Your task to perform on an android device: check battery use Image 0: 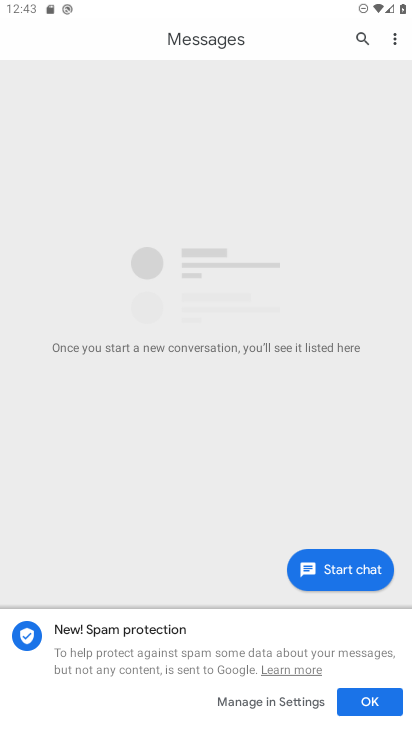
Step 0: press home button
Your task to perform on an android device: check battery use Image 1: 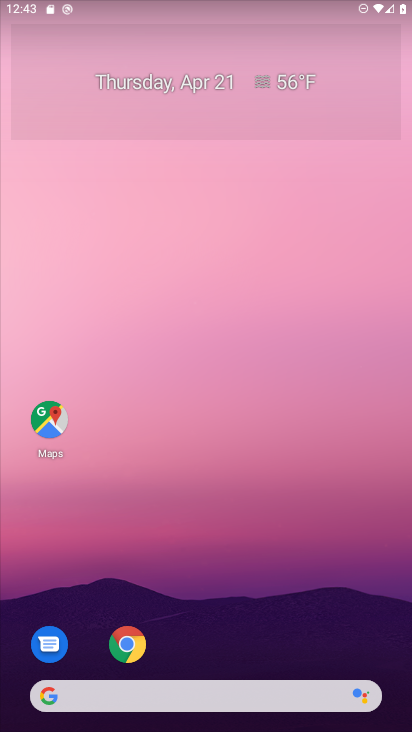
Step 1: drag from (197, 663) to (211, 64)
Your task to perform on an android device: check battery use Image 2: 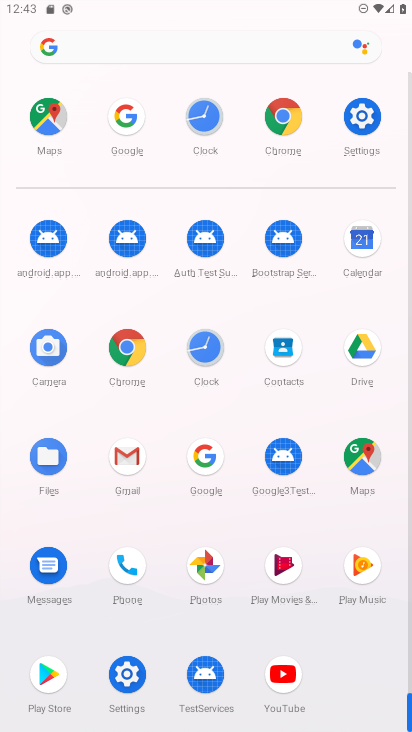
Step 2: click (362, 112)
Your task to perform on an android device: check battery use Image 3: 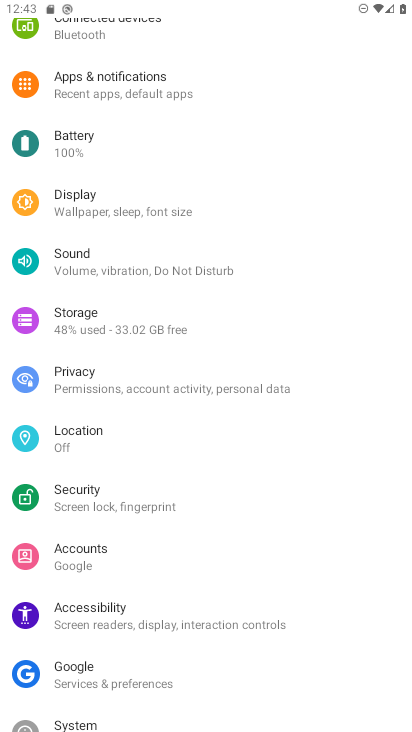
Step 3: click (78, 155)
Your task to perform on an android device: check battery use Image 4: 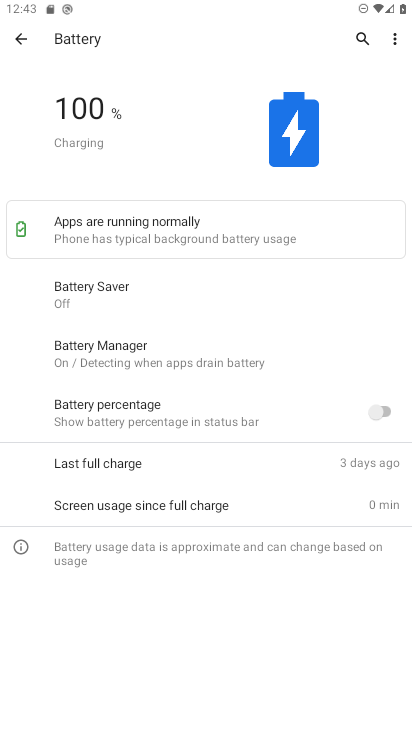
Step 4: task complete